Your task to perform on an android device: turn off picture-in-picture Image 0: 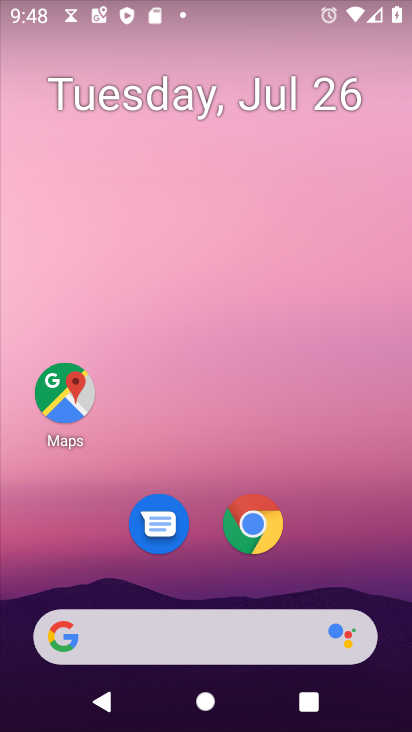
Step 0: press home button
Your task to perform on an android device: turn off picture-in-picture Image 1: 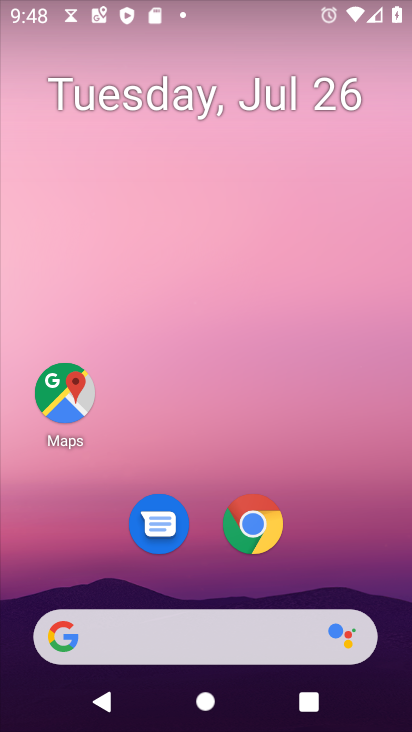
Step 1: click (248, 521)
Your task to perform on an android device: turn off picture-in-picture Image 2: 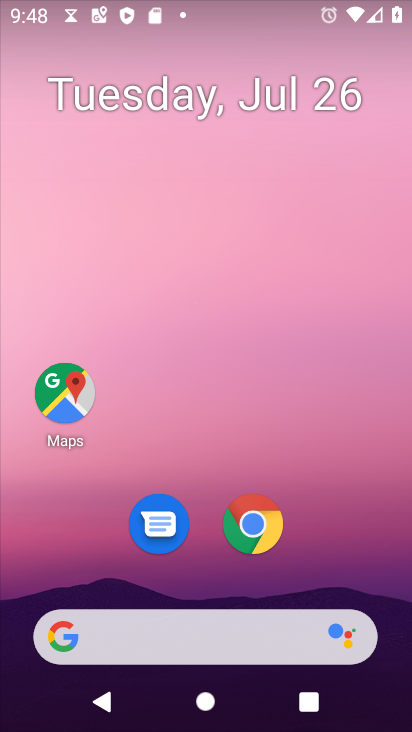
Step 2: click (194, 312)
Your task to perform on an android device: turn off picture-in-picture Image 3: 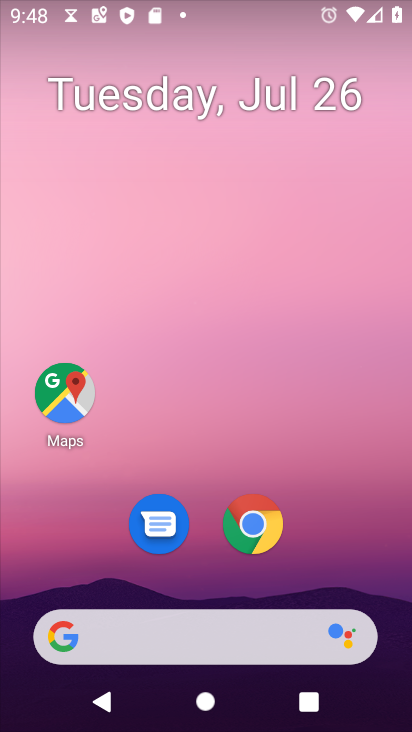
Step 3: click (244, 518)
Your task to perform on an android device: turn off picture-in-picture Image 4: 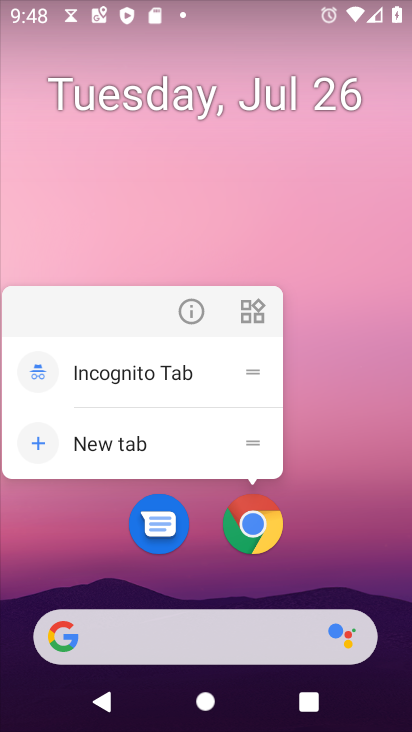
Step 4: click (195, 306)
Your task to perform on an android device: turn off picture-in-picture Image 5: 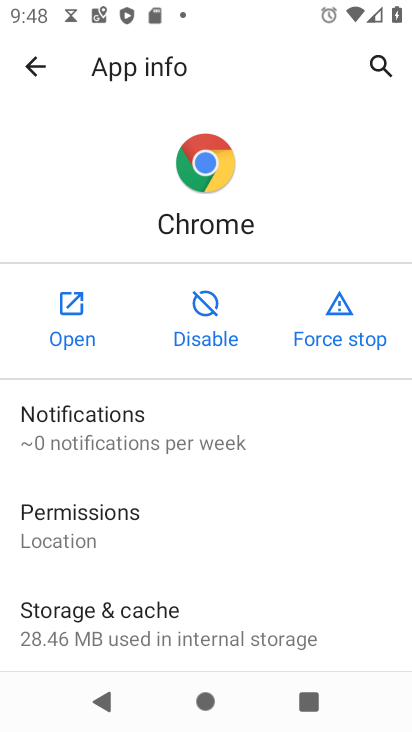
Step 5: drag from (171, 583) to (335, 112)
Your task to perform on an android device: turn off picture-in-picture Image 6: 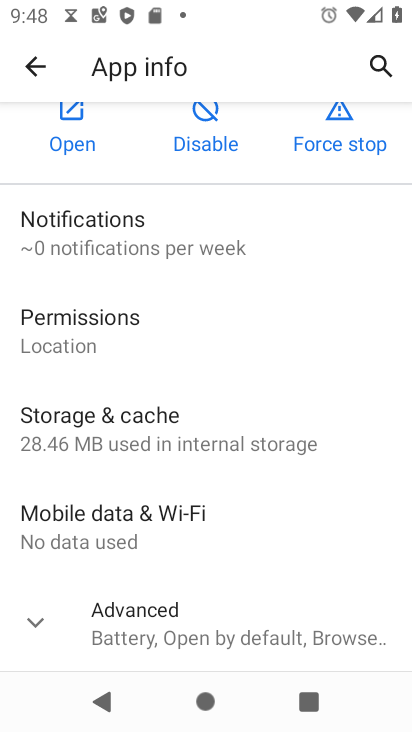
Step 6: click (167, 623)
Your task to perform on an android device: turn off picture-in-picture Image 7: 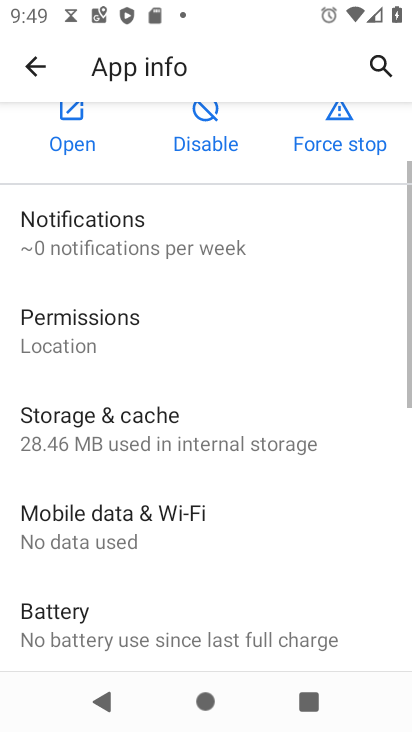
Step 7: drag from (218, 577) to (330, 172)
Your task to perform on an android device: turn off picture-in-picture Image 8: 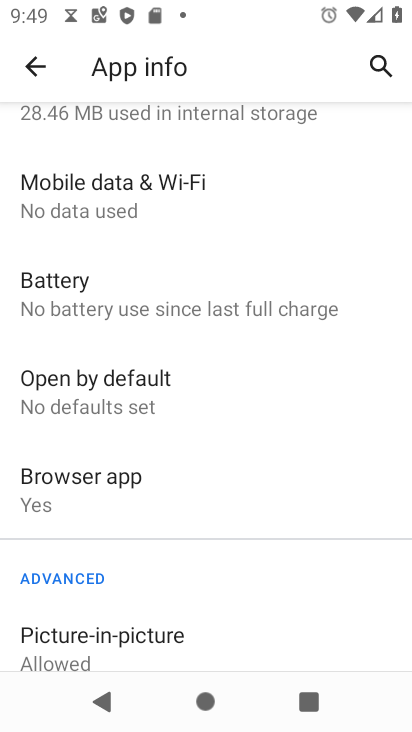
Step 8: click (135, 638)
Your task to perform on an android device: turn off picture-in-picture Image 9: 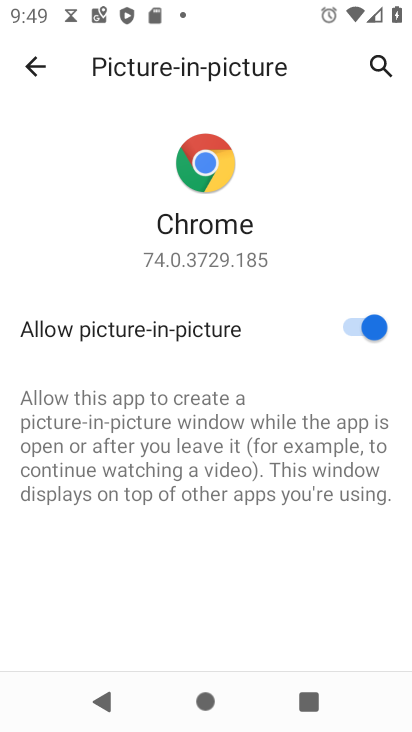
Step 9: click (357, 326)
Your task to perform on an android device: turn off picture-in-picture Image 10: 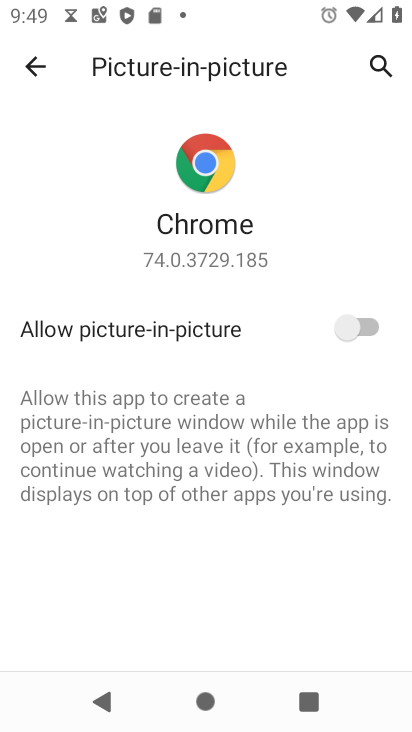
Step 10: task complete